Your task to perform on an android device: turn on wifi Image 0: 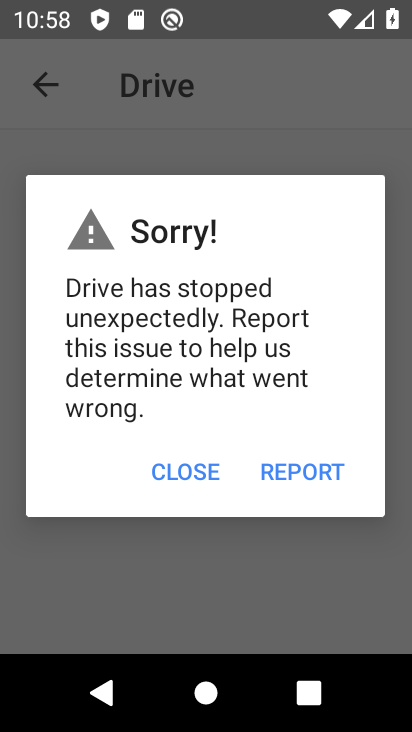
Step 0: press home button
Your task to perform on an android device: turn on wifi Image 1: 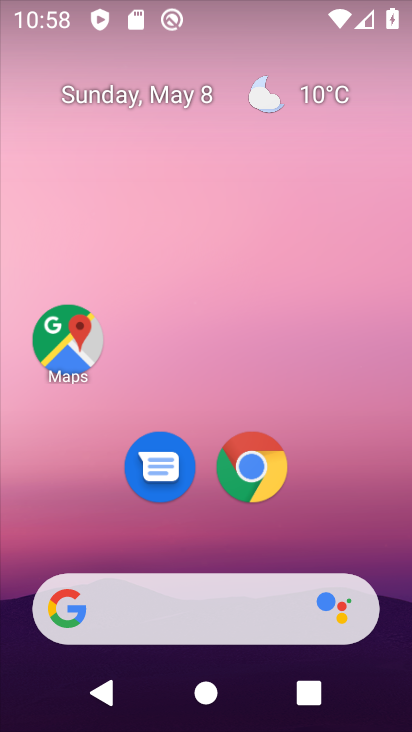
Step 1: drag from (353, 531) to (204, 72)
Your task to perform on an android device: turn on wifi Image 2: 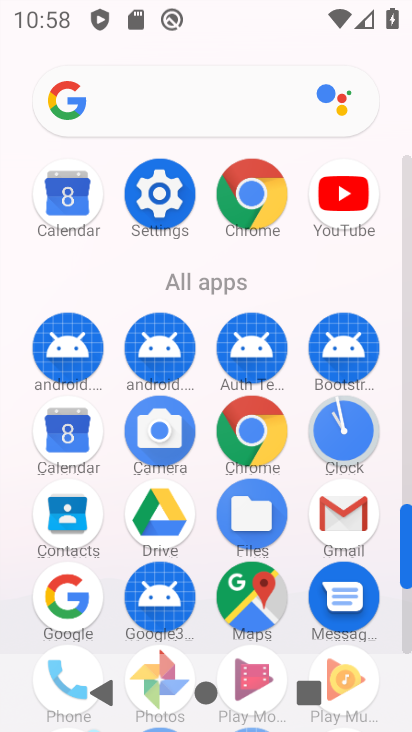
Step 2: click (165, 174)
Your task to perform on an android device: turn on wifi Image 3: 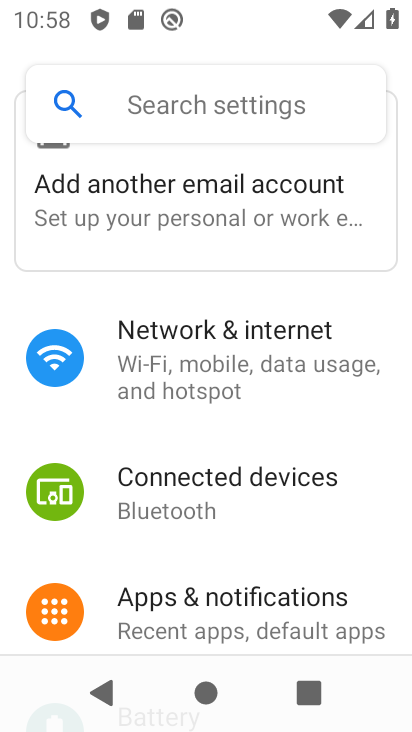
Step 3: click (165, 353)
Your task to perform on an android device: turn on wifi Image 4: 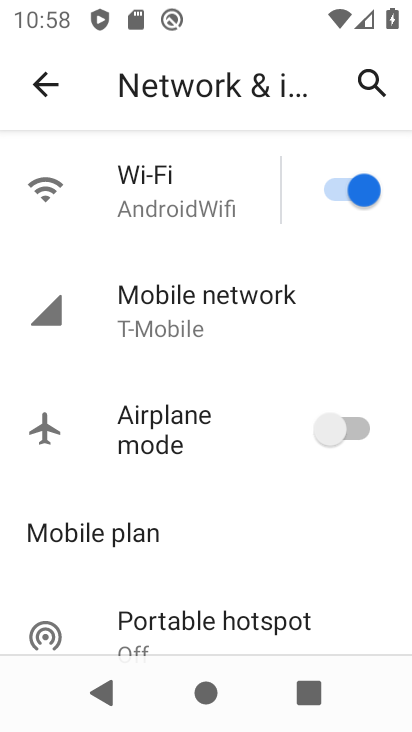
Step 4: task complete